Your task to perform on an android device: add a label to a message in the gmail app Image 0: 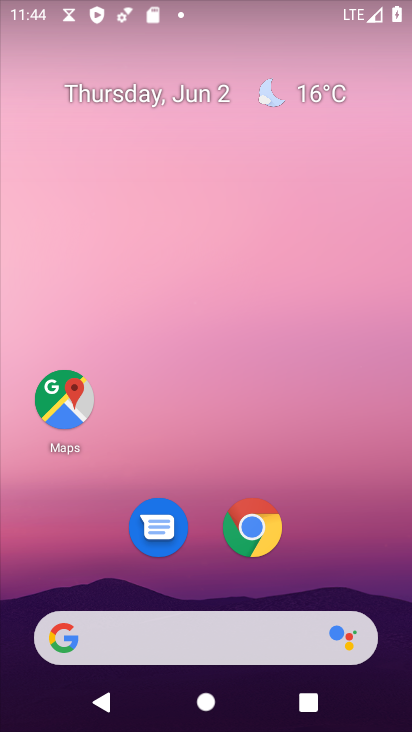
Step 0: drag from (179, 627) to (106, 114)
Your task to perform on an android device: add a label to a message in the gmail app Image 1: 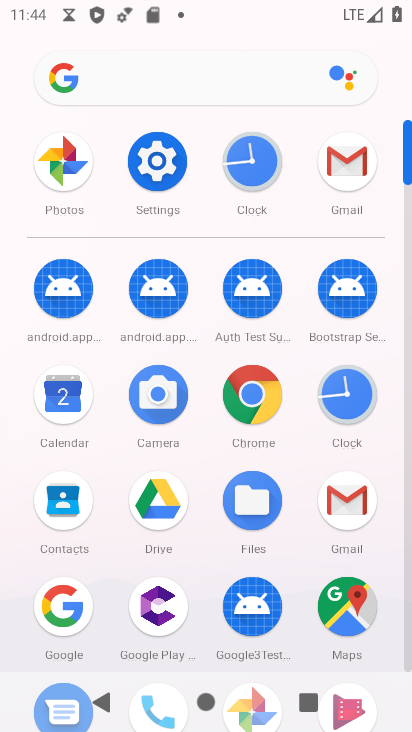
Step 1: click (349, 185)
Your task to perform on an android device: add a label to a message in the gmail app Image 2: 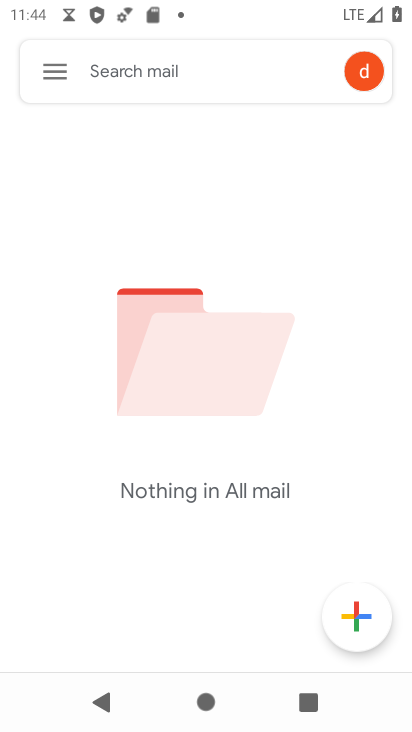
Step 2: click (37, 75)
Your task to perform on an android device: add a label to a message in the gmail app Image 3: 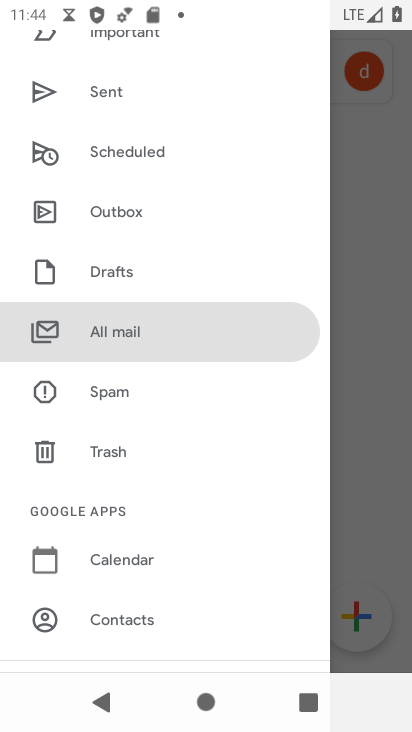
Step 3: click (106, 347)
Your task to perform on an android device: add a label to a message in the gmail app Image 4: 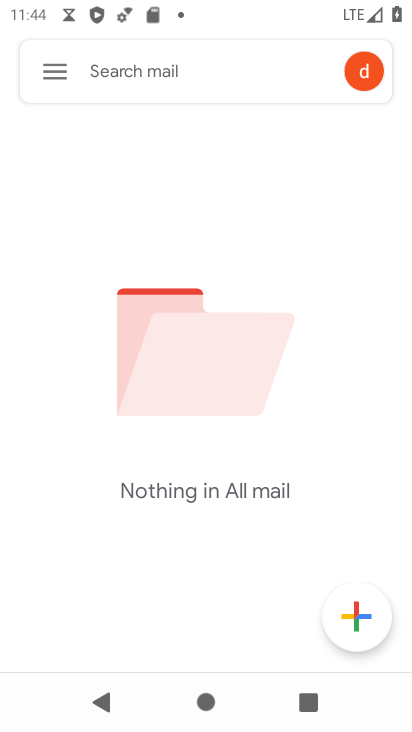
Step 4: task complete